Your task to perform on an android device: Is it going to rain today? Image 0: 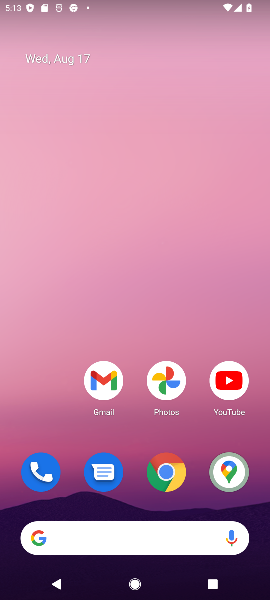
Step 0: drag from (140, 427) to (143, 136)
Your task to perform on an android device: Is it going to rain today? Image 1: 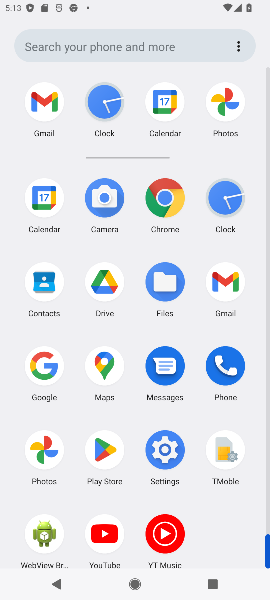
Step 1: click (56, 362)
Your task to perform on an android device: Is it going to rain today? Image 2: 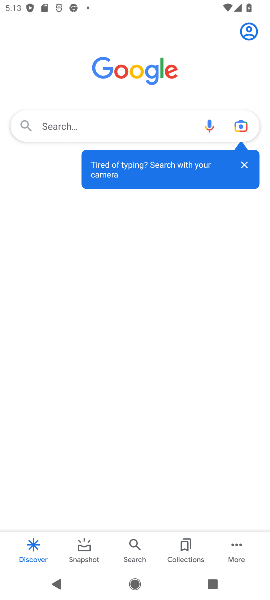
Step 2: click (85, 124)
Your task to perform on an android device: Is it going to rain today? Image 3: 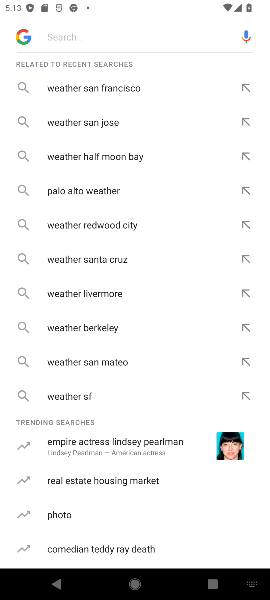
Step 3: type "weather"
Your task to perform on an android device: Is it going to rain today? Image 4: 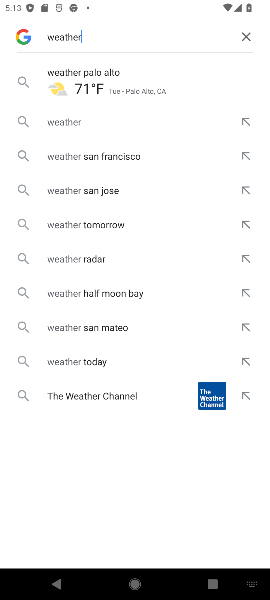
Step 4: click (177, 84)
Your task to perform on an android device: Is it going to rain today? Image 5: 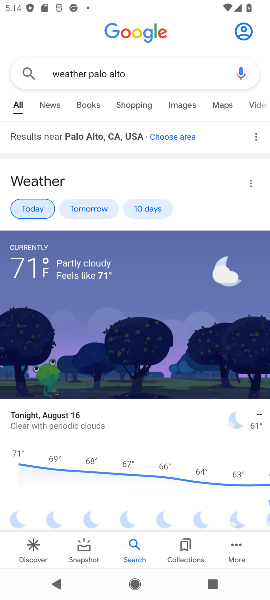
Step 5: task complete